Your task to perform on an android device: toggle wifi Image 0: 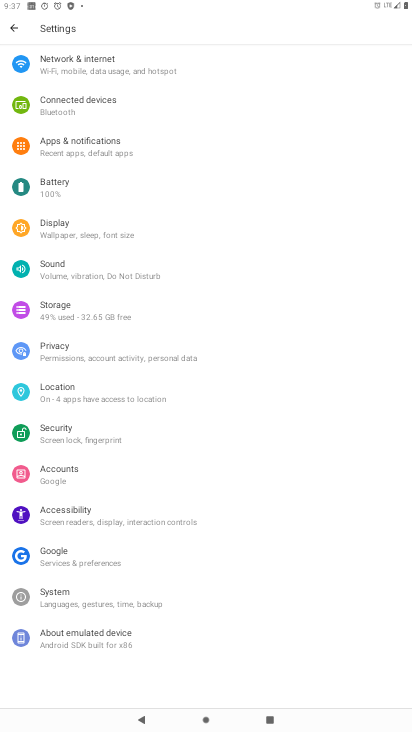
Step 0: press home button
Your task to perform on an android device: toggle wifi Image 1: 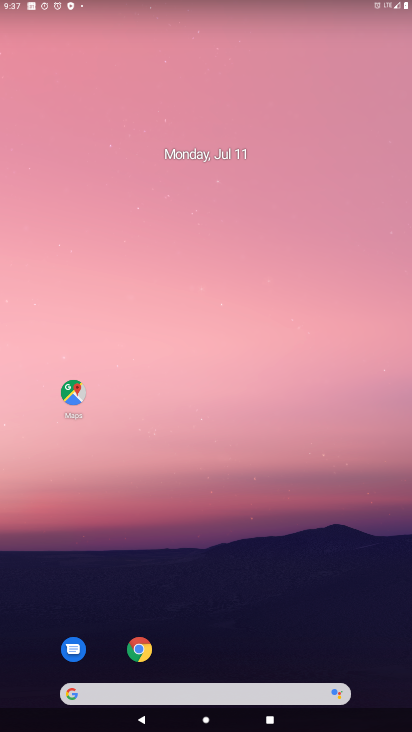
Step 1: drag from (185, 689) to (348, 193)
Your task to perform on an android device: toggle wifi Image 2: 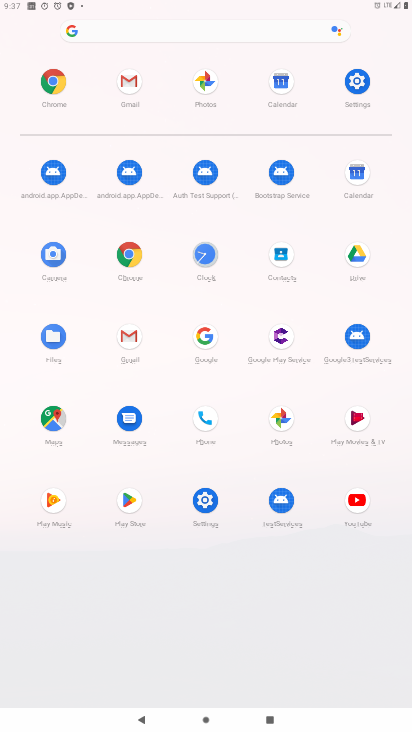
Step 2: click (358, 79)
Your task to perform on an android device: toggle wifi Image 3: 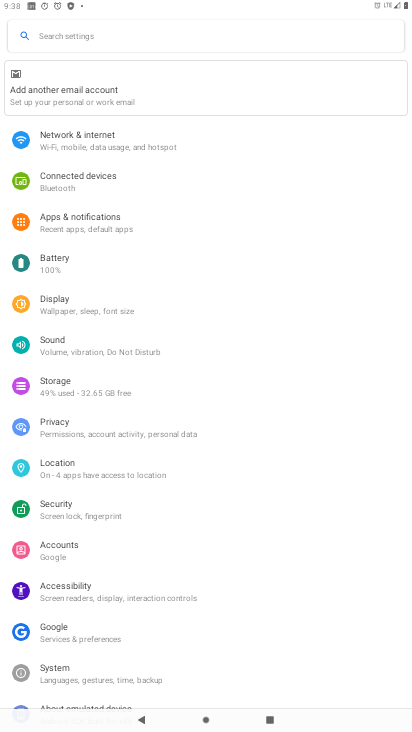
Step 3: click (145, 139)
Your task to perform on an android device: toggle wifi Image 4: 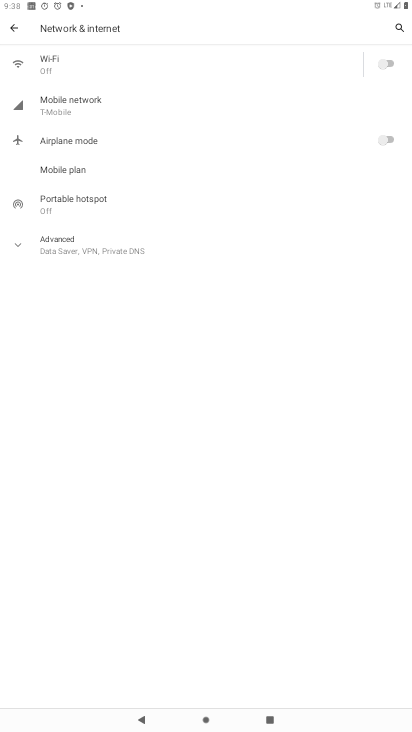
Step 4: click (388, 68)
Your task to perform on an android device: toggle wifi Image 5: 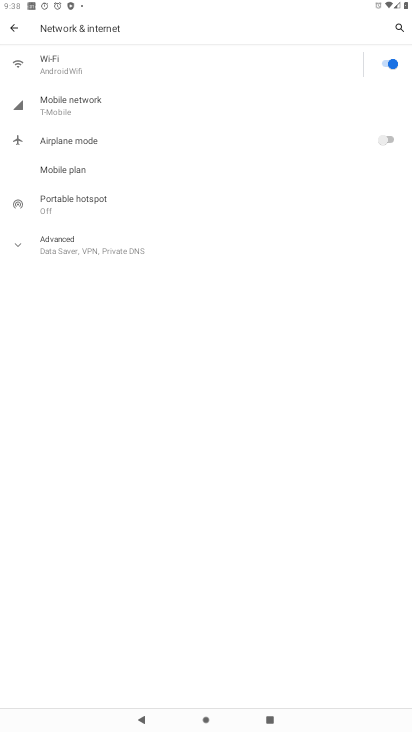
Step 5: task complete